Your task to perform on an android device: Open Maps and search for coffee Image 0: 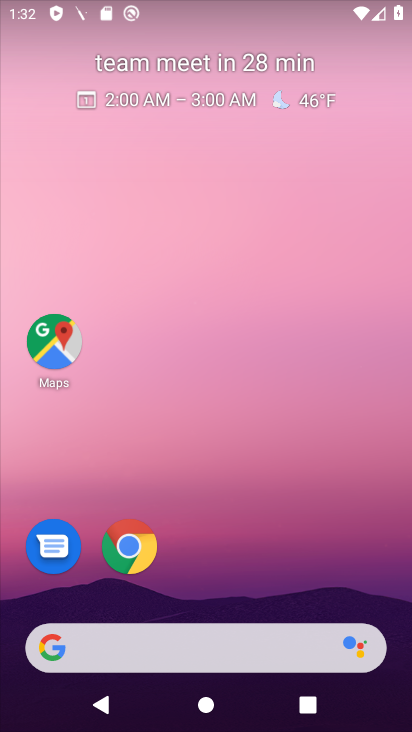
Step 0: click (53, 343)
Your task to perform on an android device: Open Maps and search for coffee Image 1: 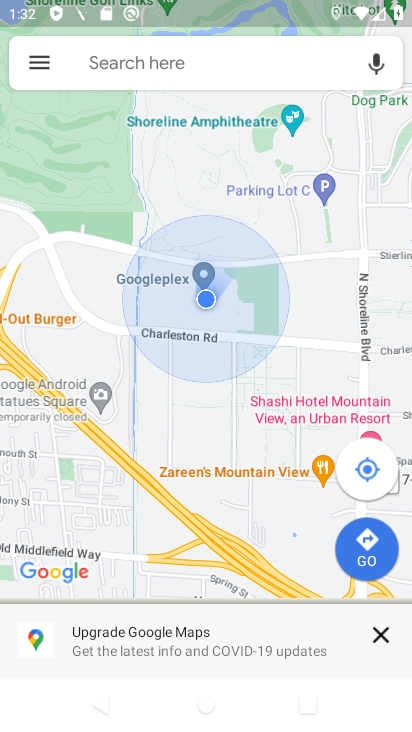
Step 1: click (166, 56)
Your task to perform on an android device: Open Maps and search for coffee Image 2: 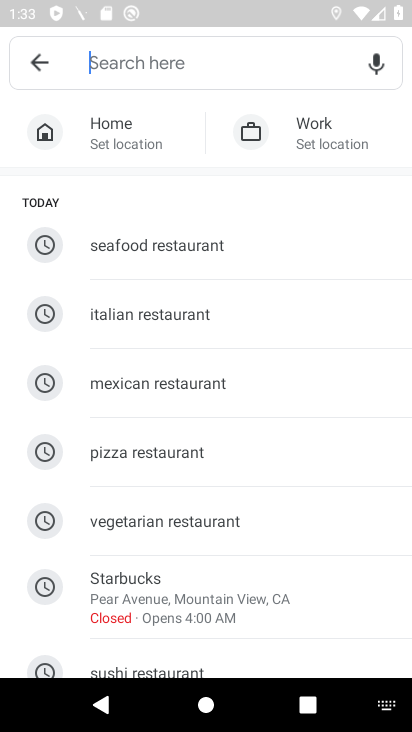
Step 2: type "coffee"
Your task to perform on an android device: Open Maps and search for coffee Image 3: 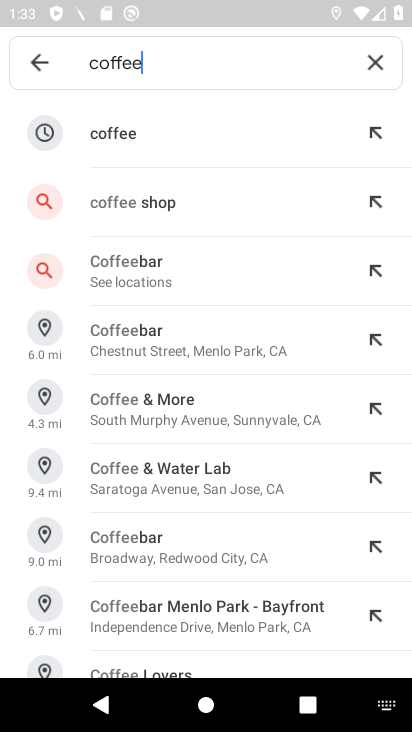
Step 3: click (102, 126)
Your task to perform on an android device: Open Maps and search for coffee Image 4: 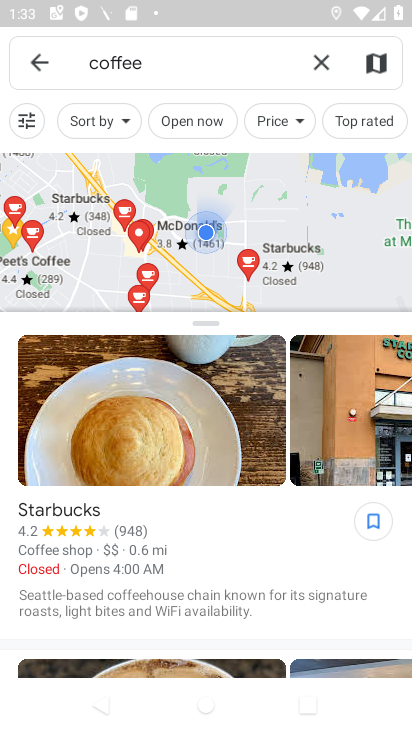
Step 4: task complete